Your task to perform on an android device: Open the Play Movies app and select the watchlist tab. Image 0: 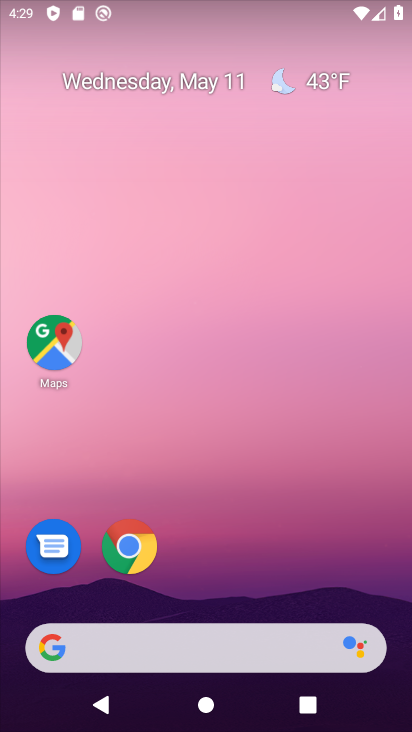
Step 0: drag from (183, 624) to (180, 257)
Your task to perform on an android device: Open the Play Movies app and select the watchlist tab. Image 1: 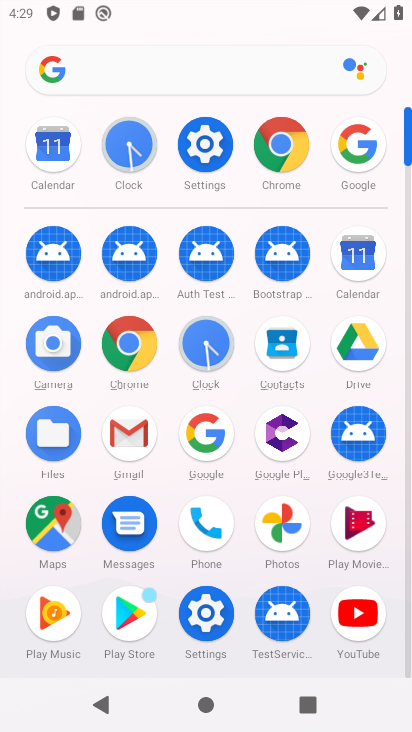
Step 1: click (362, 516)
Your task to perform on an android device: Open the Play Movies app and select the watchlist tab. Image 2: 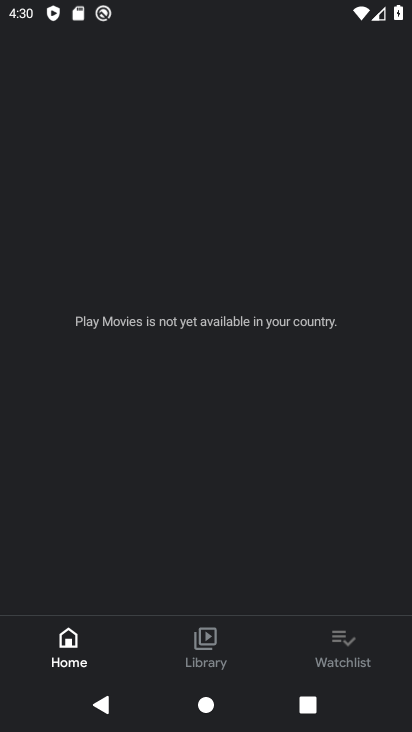
Step 2: click (348, 651)
Your task to perform on an android device: Open the Play Movies app and select the watchlist tab. Image 3: 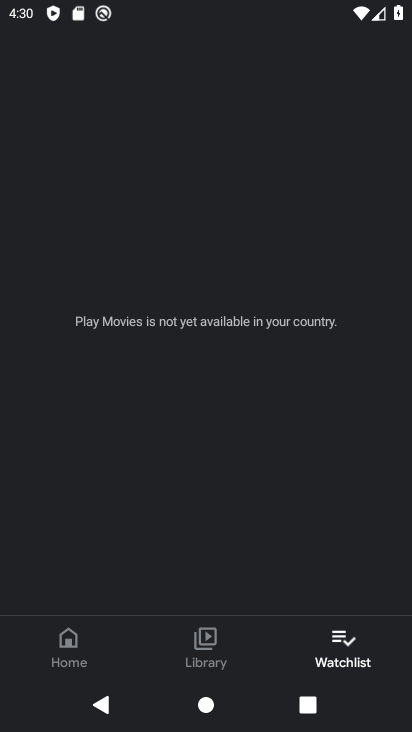
Step 3: task complete